Your task to perform on an android device: Open Yahoo.com Image 0: 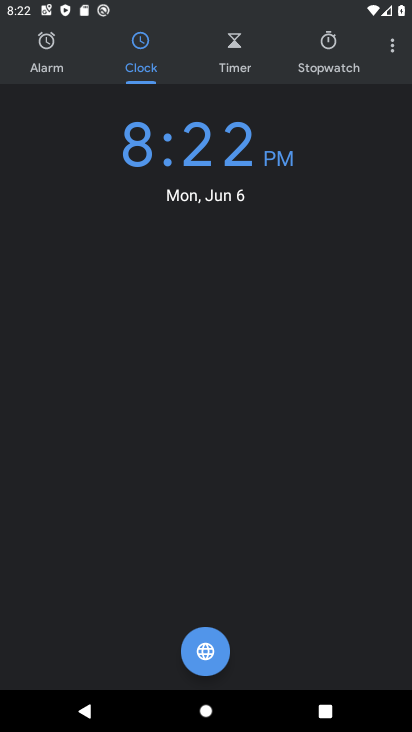
Step 0: press home button
Your task to perform on an android device: Open Yahoo.com Image 1: 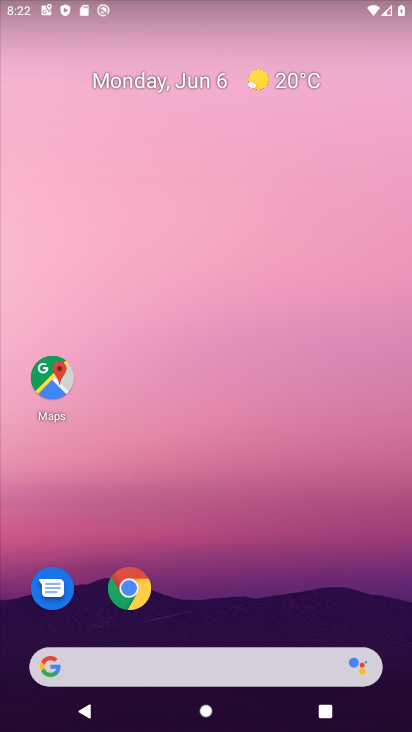
Step 1: click (127, 586)
Your task to perform on an android device: Open Yahoo.com Image 2: 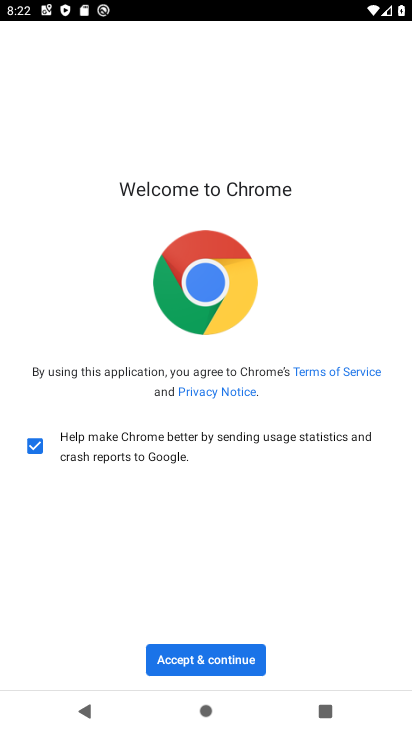
Step 2: click (254, 666)
Your task to perform on an android device: Open Yahoo.com Image 3: 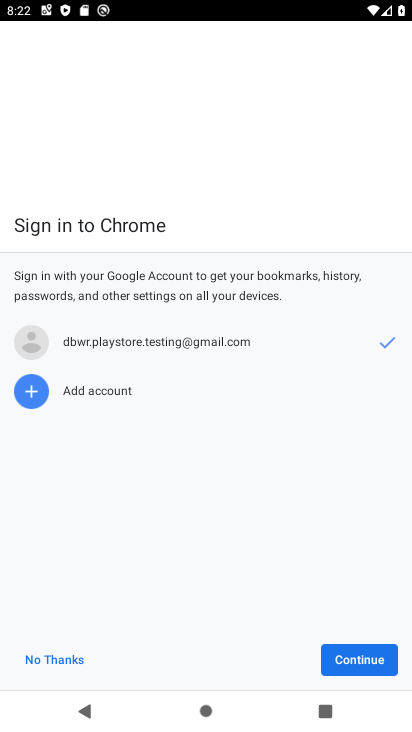
Step 3: click (342, 657)
Your task to perform on an android device: Open Yahoo.com Image 4: 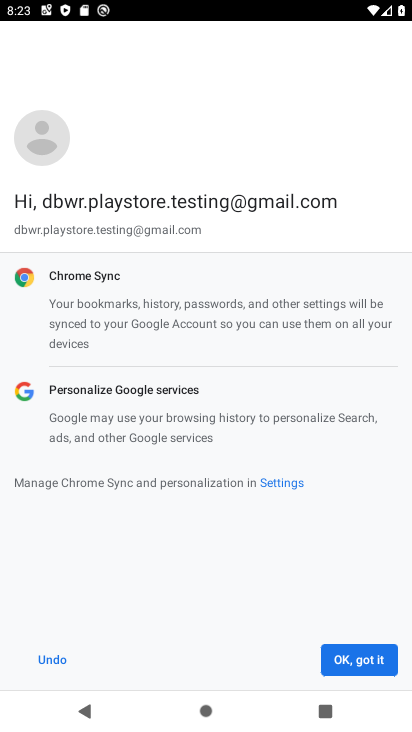
Step 4: click (348, 653)
Your task to perform on an android device: Open Yahoo.com Image 5: 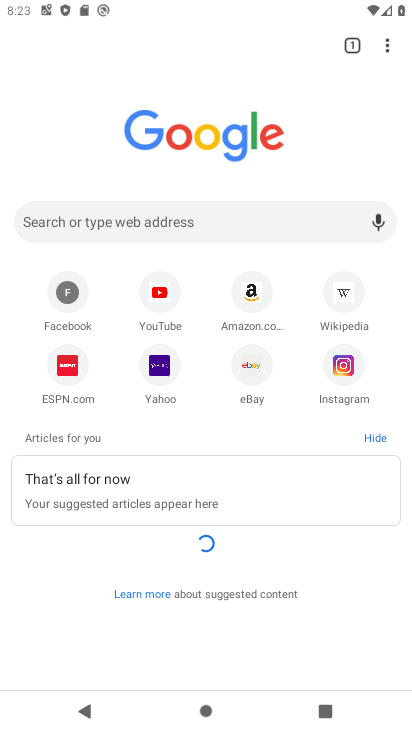
Step 5: click (162, 359)
Your task to perform on an android device: Open Yahoo.com Image 6: 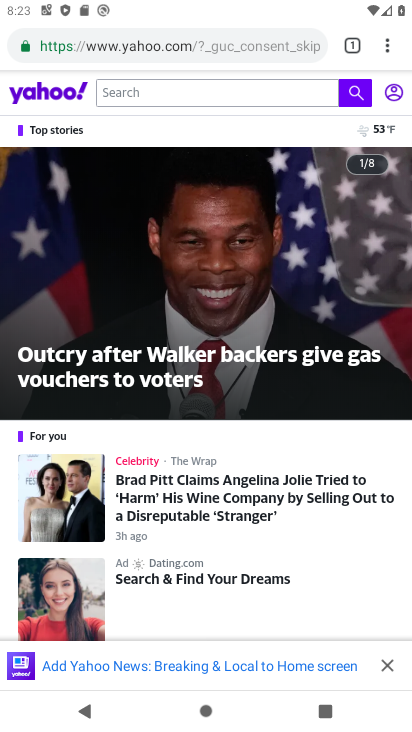
Step 6: task complete